Your task to perform on an android device: turn on javascript in the chrome app Image 0: 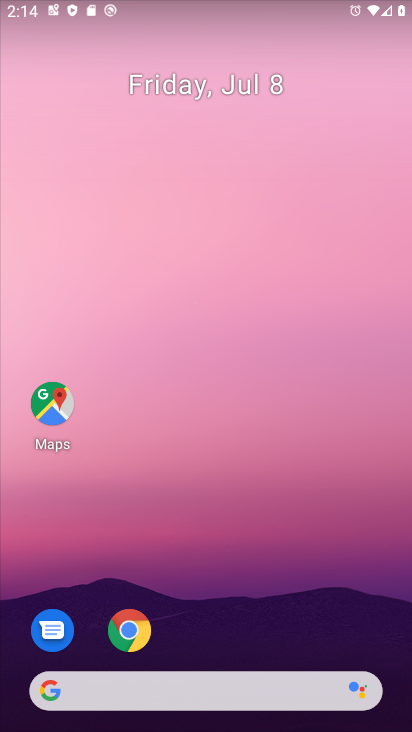
Step 0: click (127, 626)
Your task to perform on an android device: turn on javascript in the chrome app Image 1: 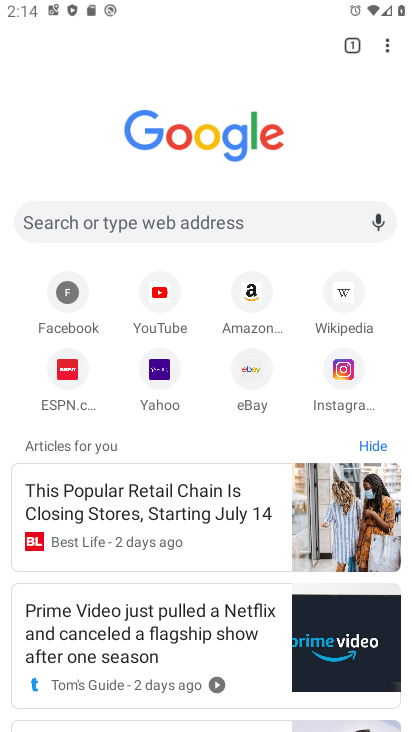
Step 1: click (385, 44)
Your task to perform on an android device: turn on javascript in the chrome app Image 2: 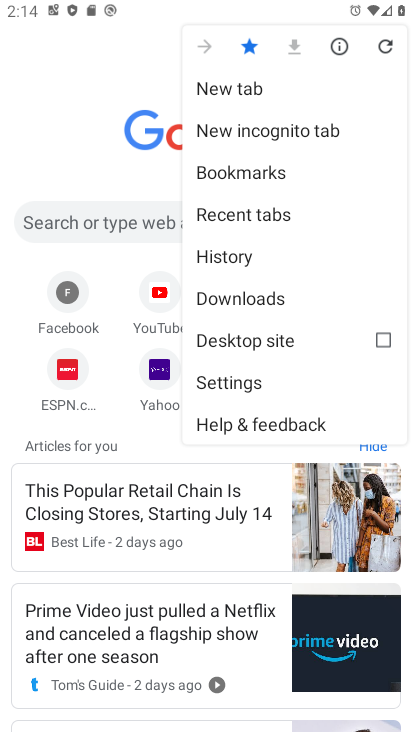
Step 2: click (252, 379)
Your task to perform on an android device: turn on javascript in the chrome app Image 3: 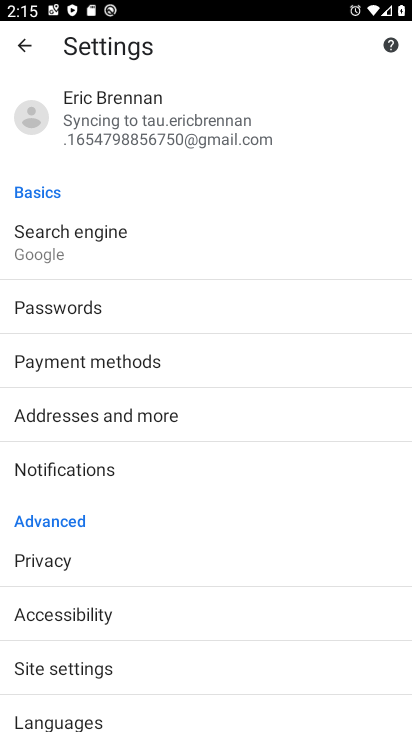
Step 3: drag from (162, 668) to (185, 166)
Your task to perform on an android device: turn on javascript in the chrome app Image 4: 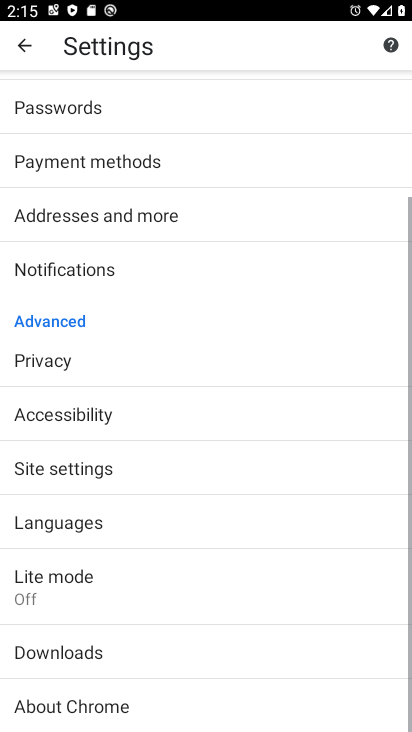
Step 4: click (113, 462)
Your task to perform on an android device: turn on javascript in the chrome app Image 5: 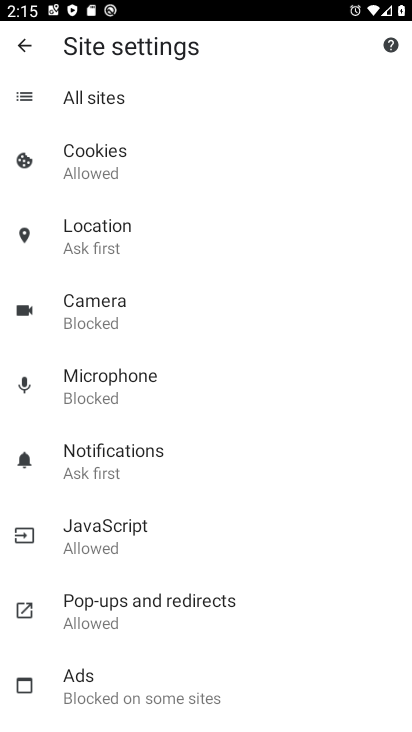
Step 5: click (148, 530)
Your task to perform on an android device: turn on javascript in the chrome app Image 6: 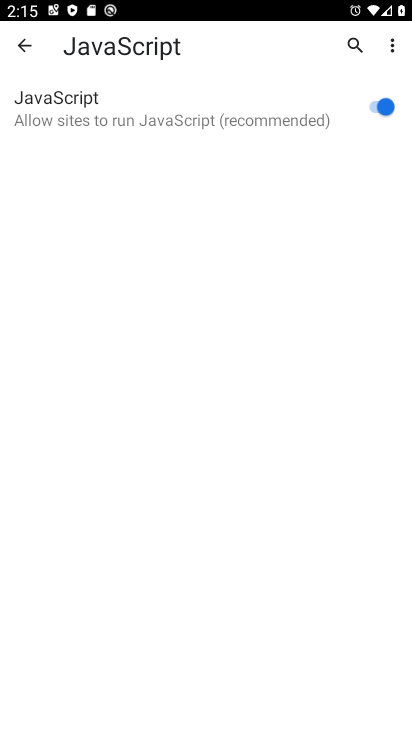
Step 6: task complete